Your task to perform on an android device: install app "File Manager" Image 0: 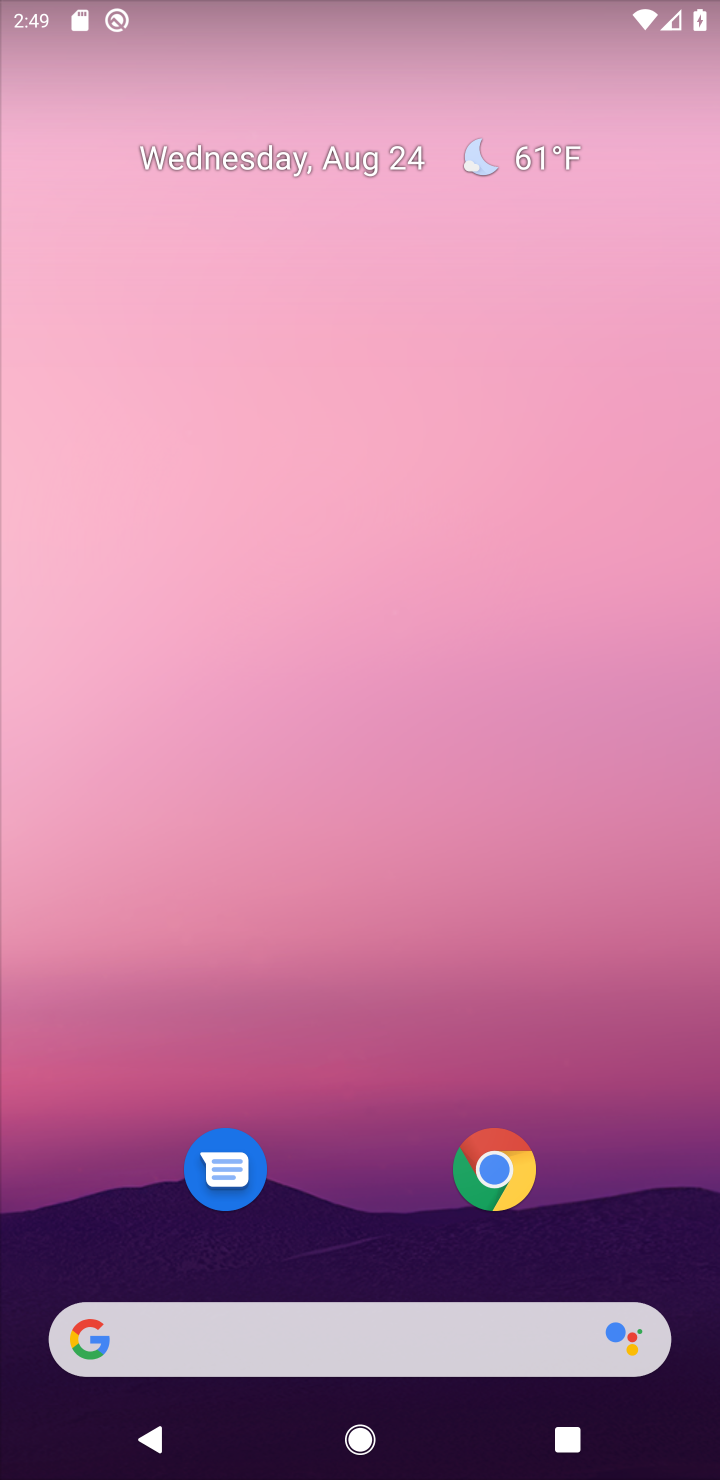
Step 0: drag from (394, 1252) to (259, 12)
Your task to perform on an android device: install app "File Manager" Image 1: 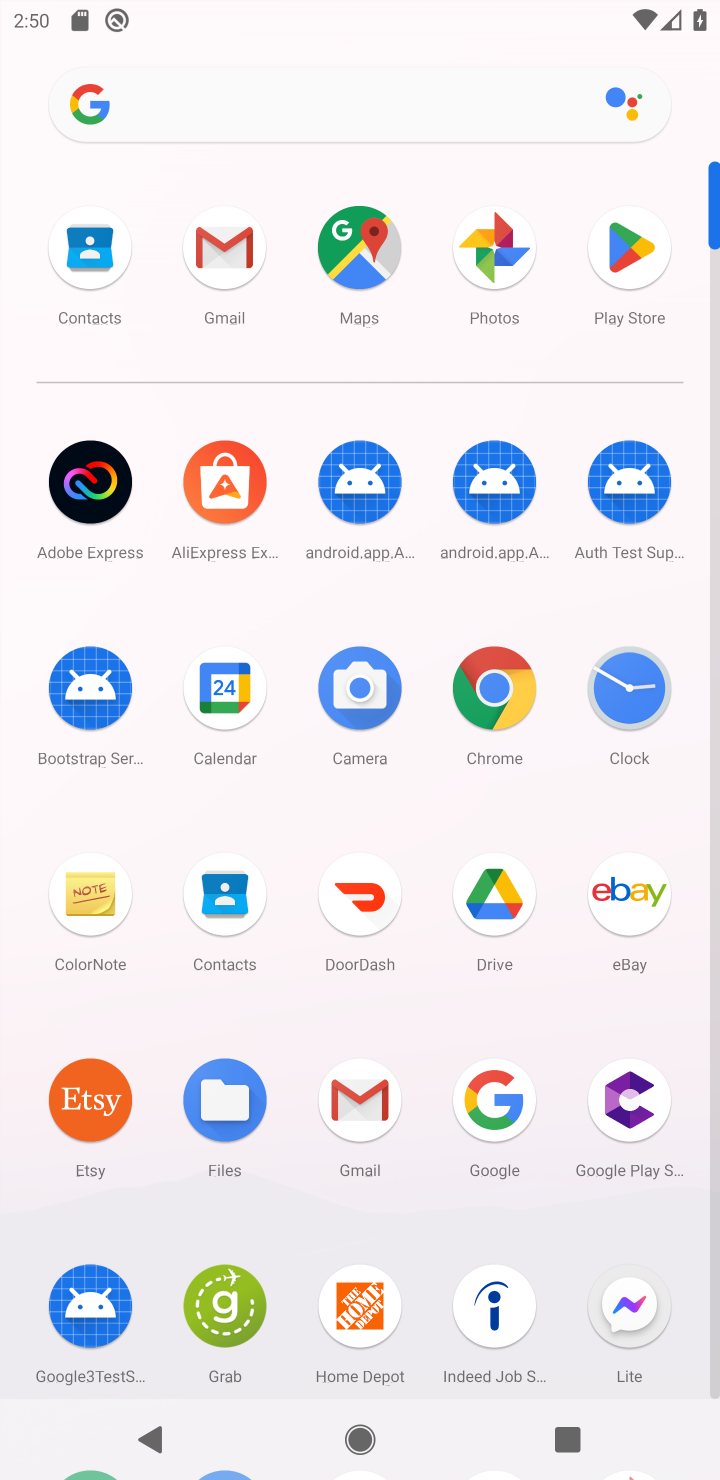
Step 1: click (576, 237)
Your task to perform on an android device: install app "File Manager" Image 2: 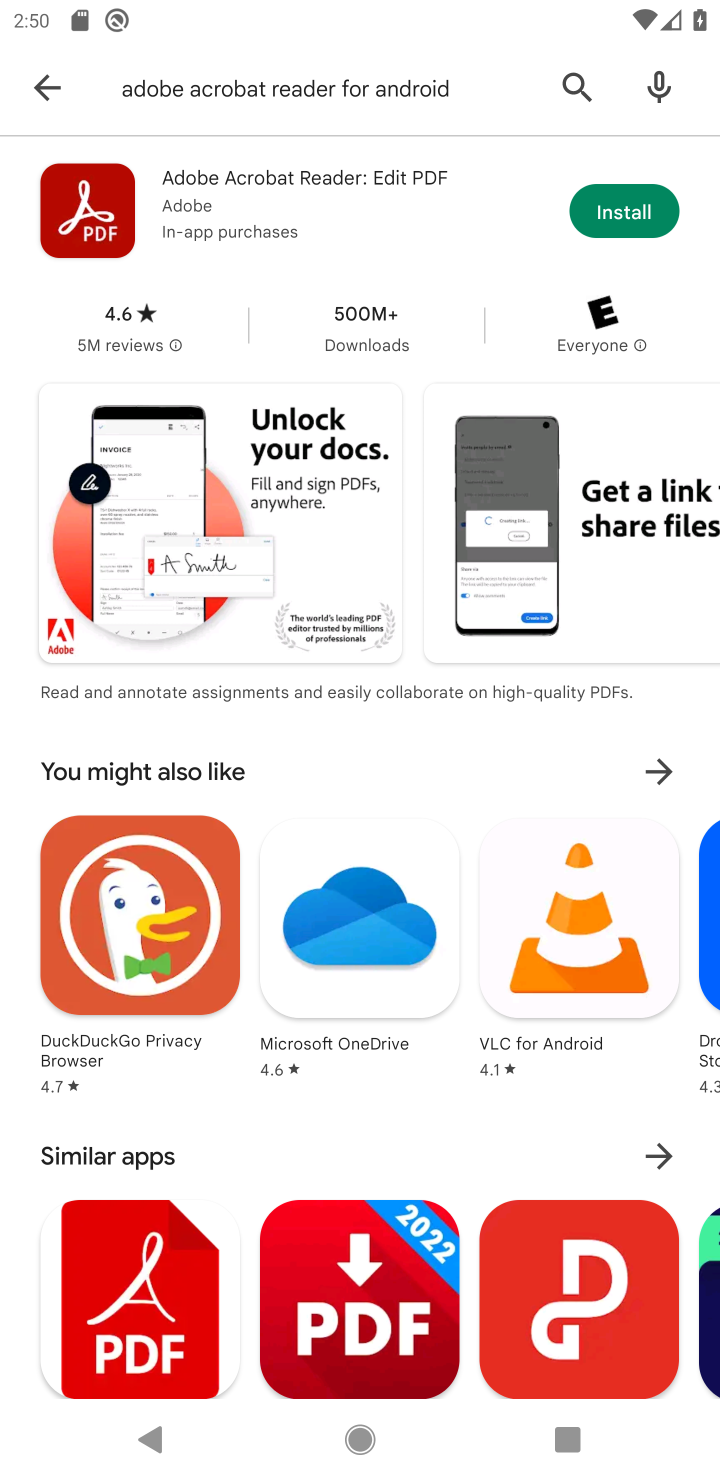
Step 2: click (70, 86)
Your task to perform on an android device: install app "File Manager" Image 3: 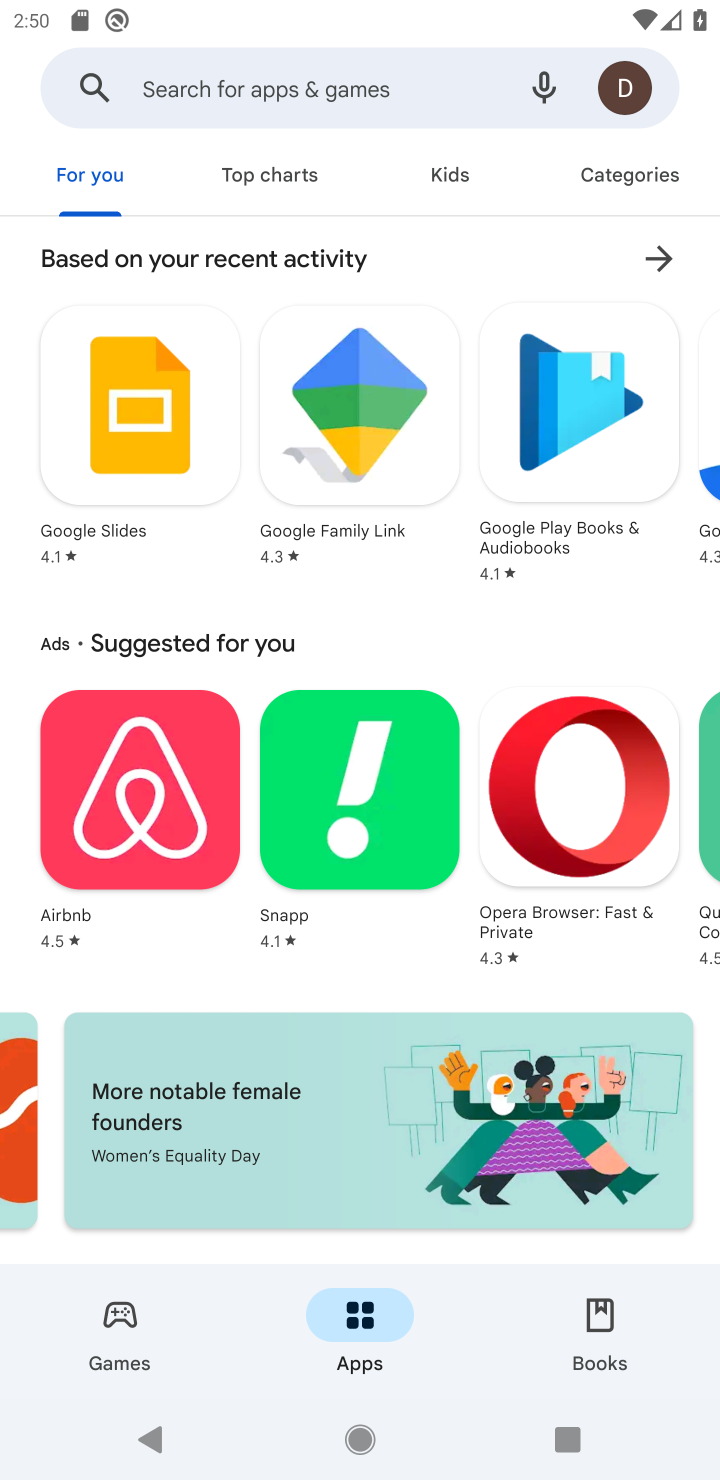
Step 3: click (242, 80)
Your task to perform on an android device: install app "File Manager" Image 4: 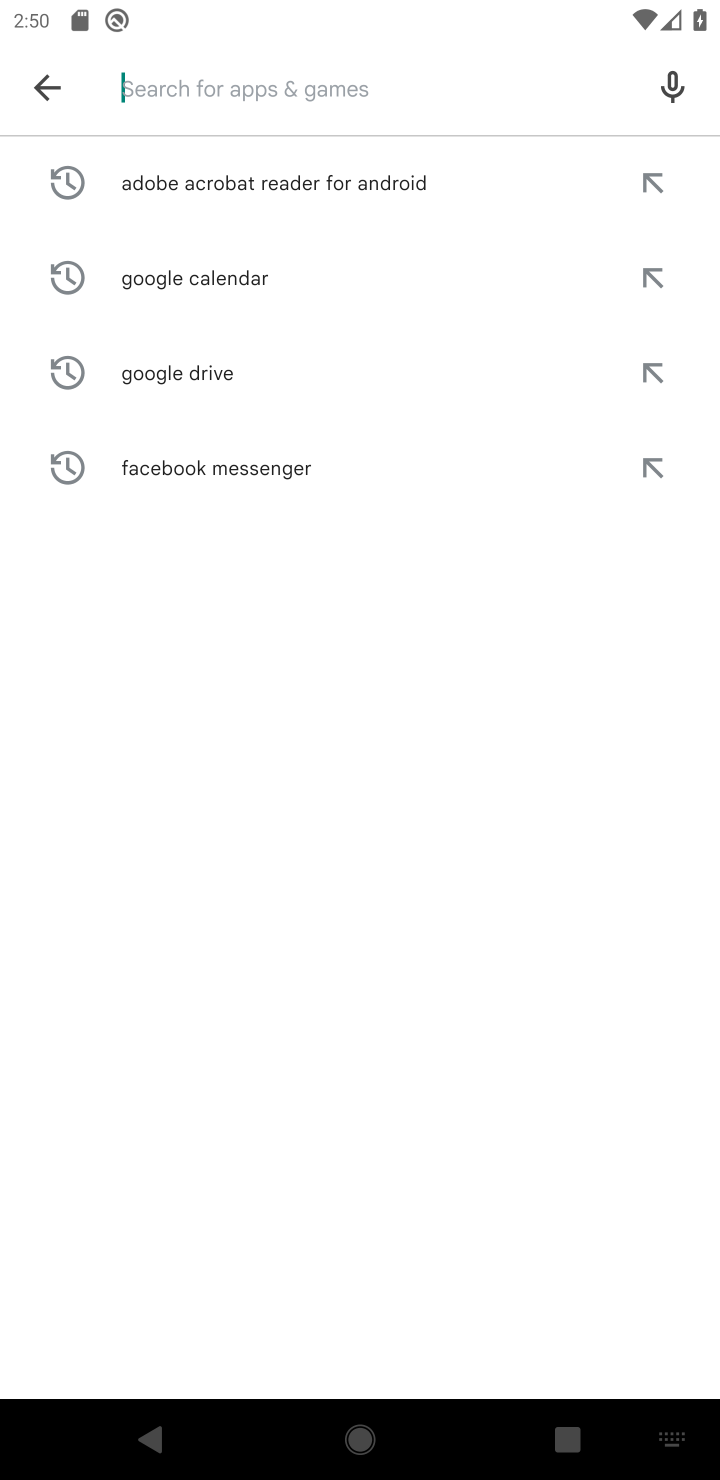
Step 4: type "File Manager"
Your task to perform on an android device: install app "File Manager" Image 5: 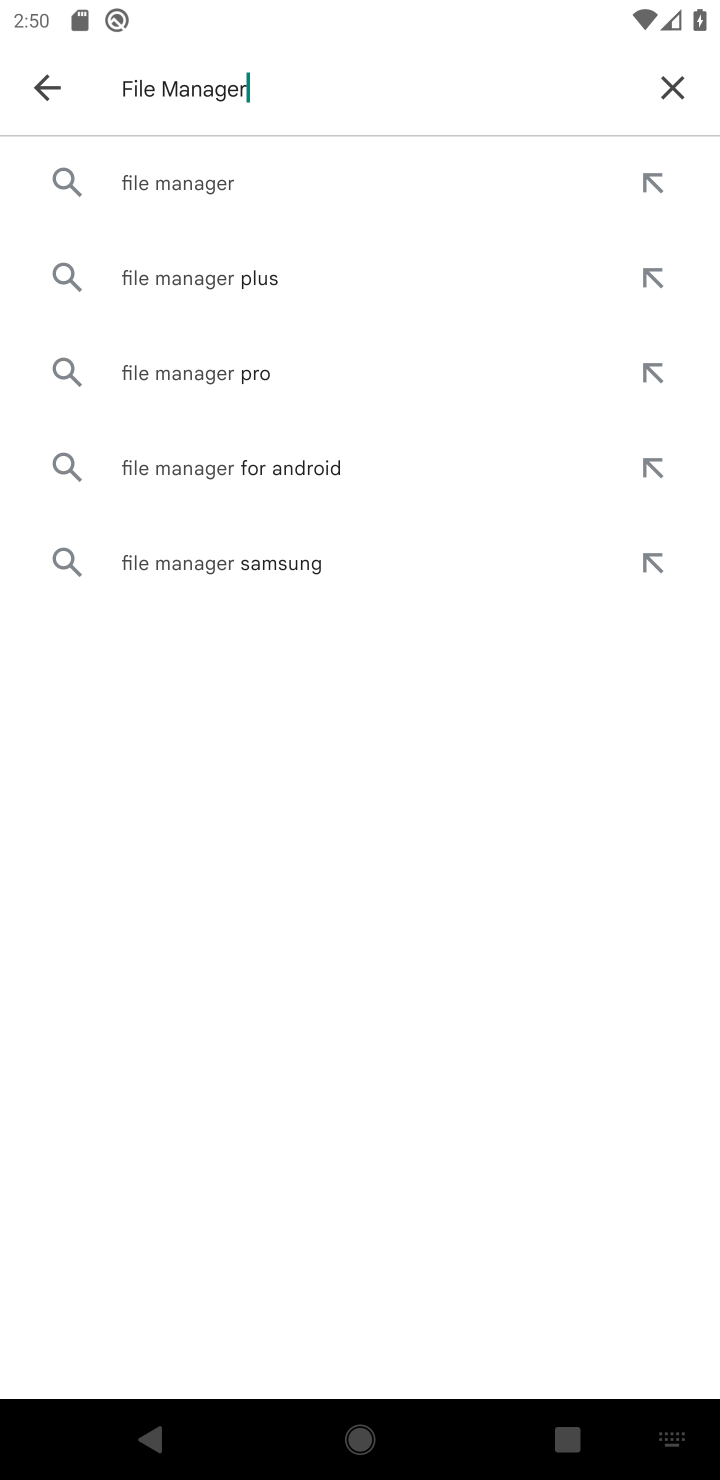
Step 5: click (182, 192)
Your task to perform on an android device: install app "File Manager" Image 6: 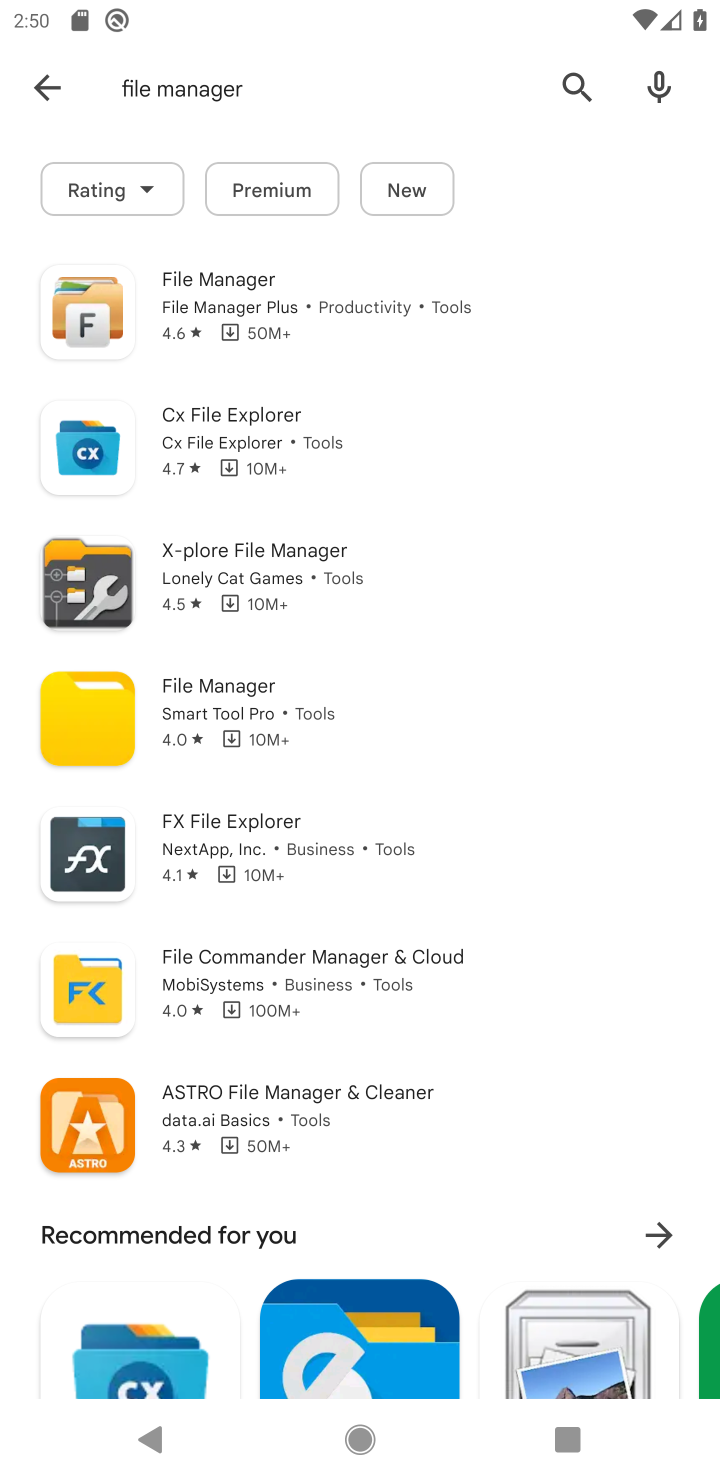
Step 6: click (194, 265)
Your task to perform on an android device: install app "File Manager" Image 7: 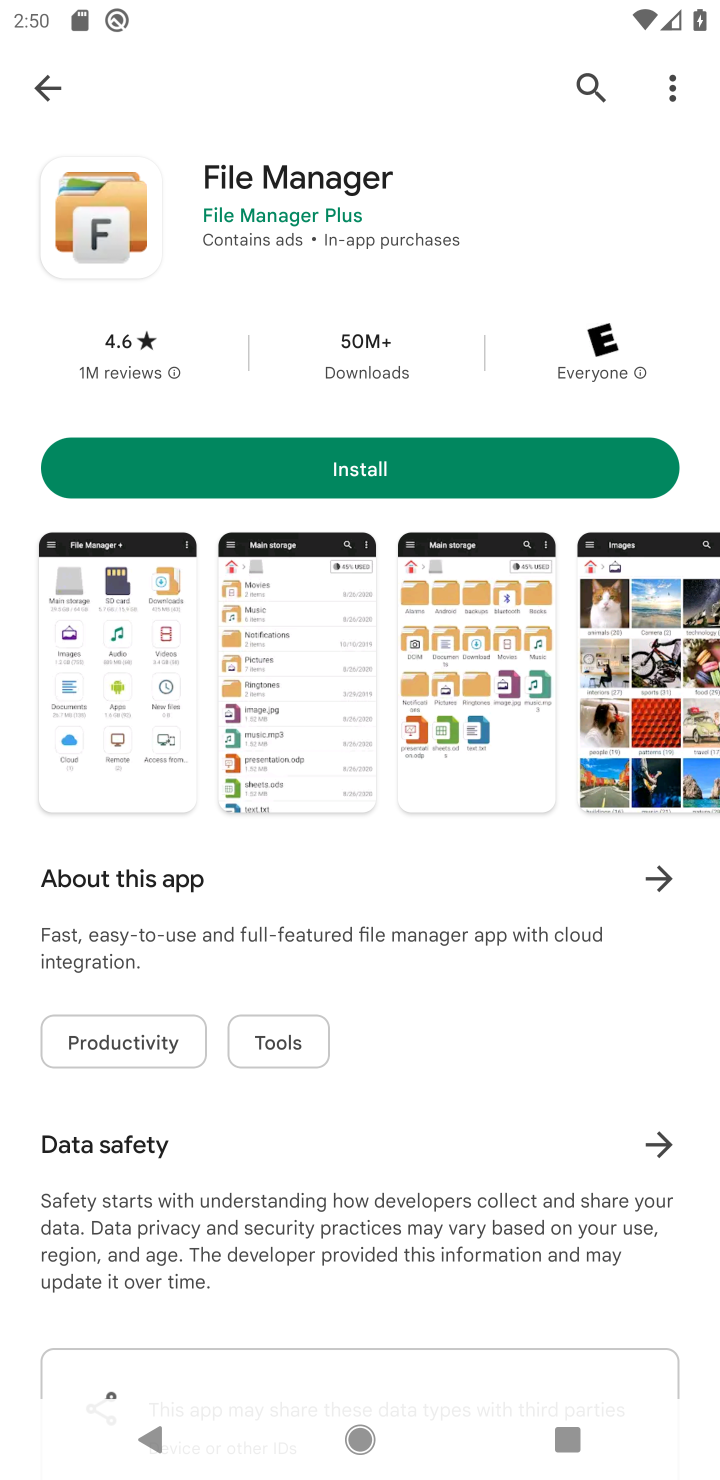
Step 7: click (351, 465)
Your task to perform on an android device: install app "File Manager" Image 8: 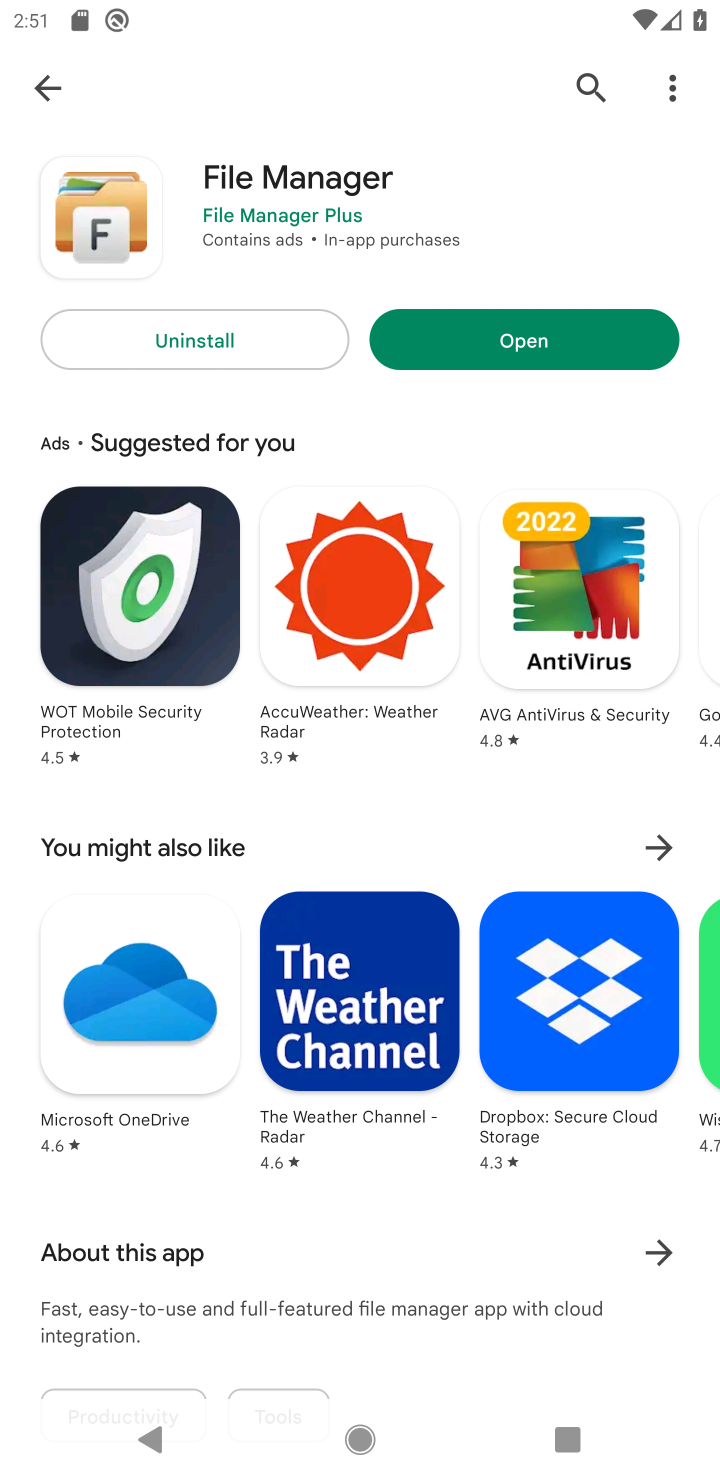
Step 8: task complete